Your task to perform on an android device: open app "Adobe Acrobat Reader" (install if not already installed) Image 0: 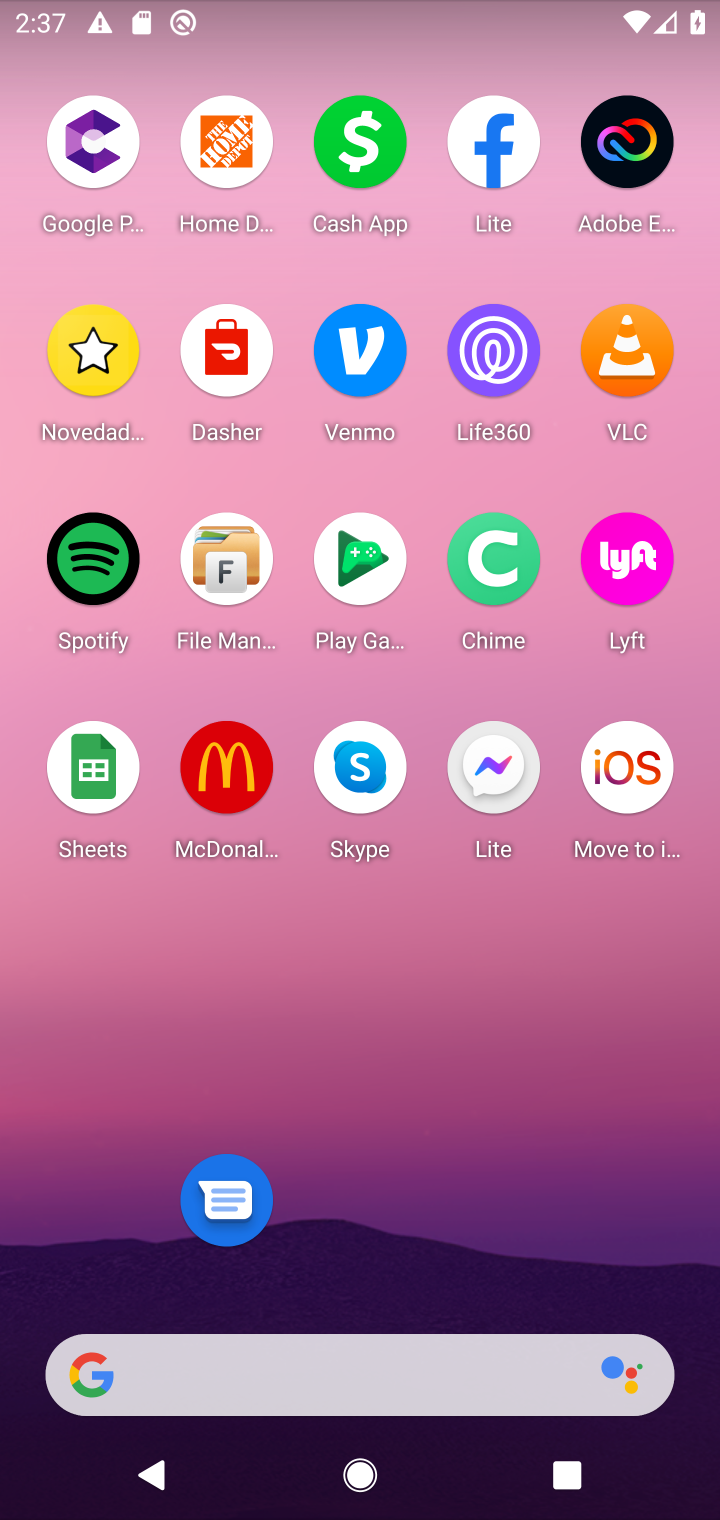
Step 0: drag from (426, 929) to (426, 295)
Your task to perform on an android device: open app "Adobe Acrobat Reader" (install if not already installed) Image 1: 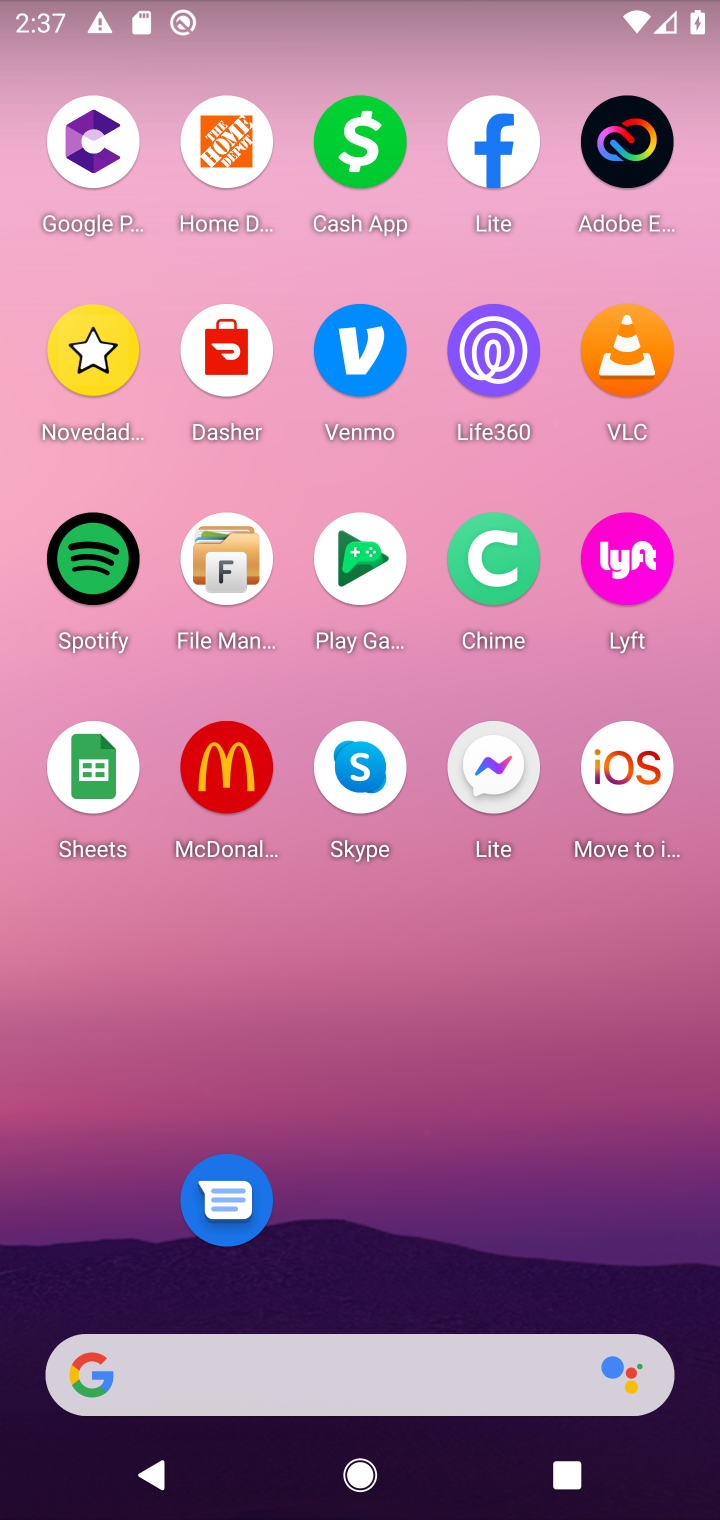
Step 1: drag from (456, 1107) to (365, 204)
Your task to perform on an android device: open app "Adobe Acrobat Reader" (install if not already installed) Image 2: 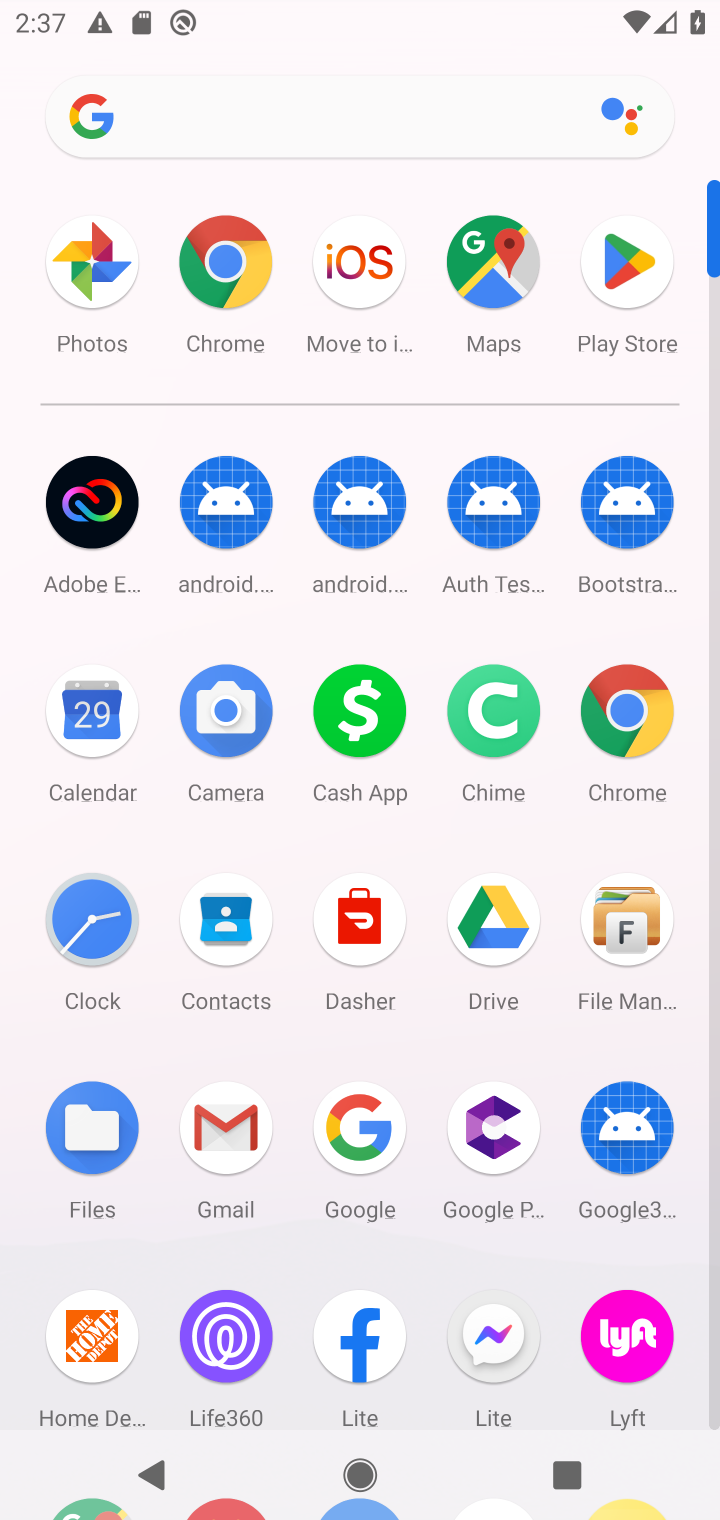
Step 2: click (640, 283)
Your task to perform on an android device: open app "Adobe Acrobat Reader" (install if not already installed) Image 3: 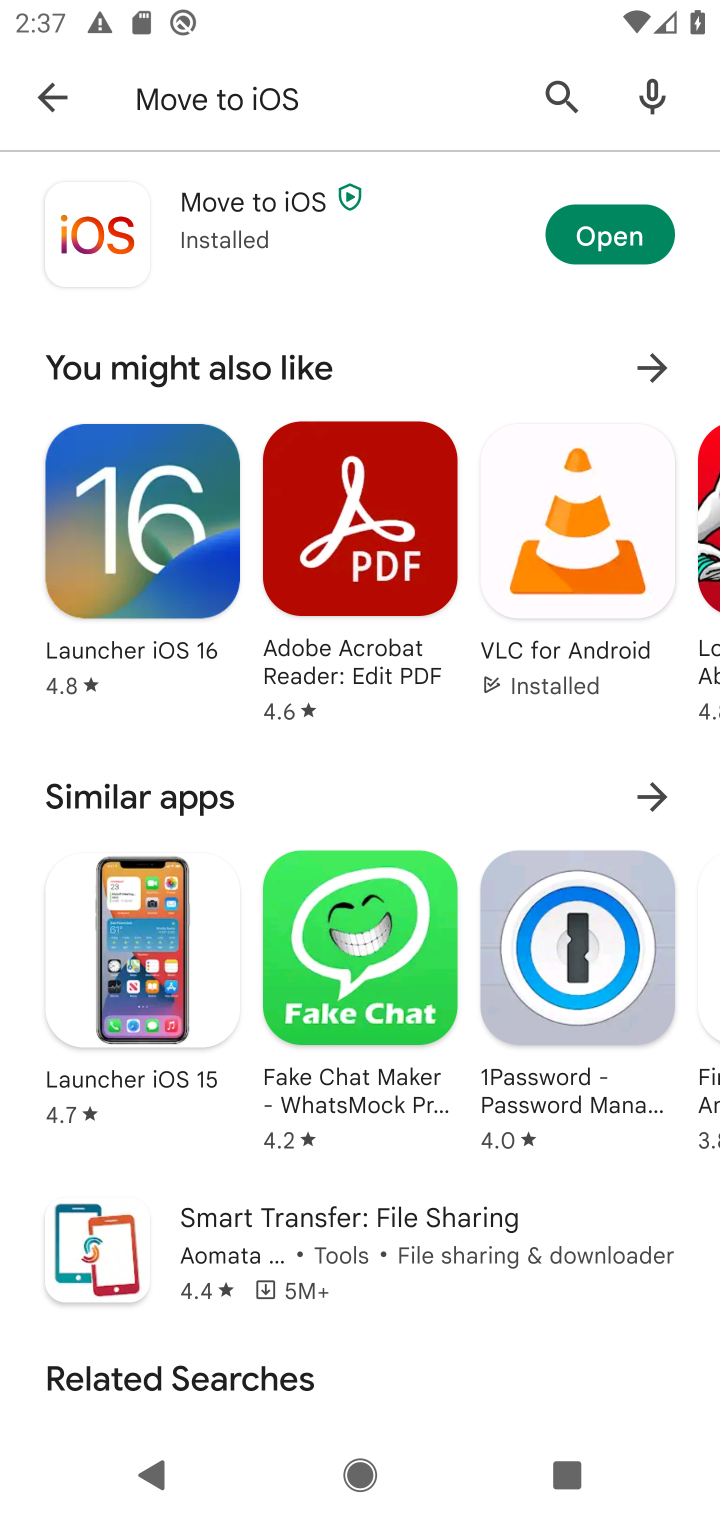
Step 3: click (390, 100)
Your task to perform on an android device: open app "Adobe Acrobat Reader" (install if not already installed) Image 4: 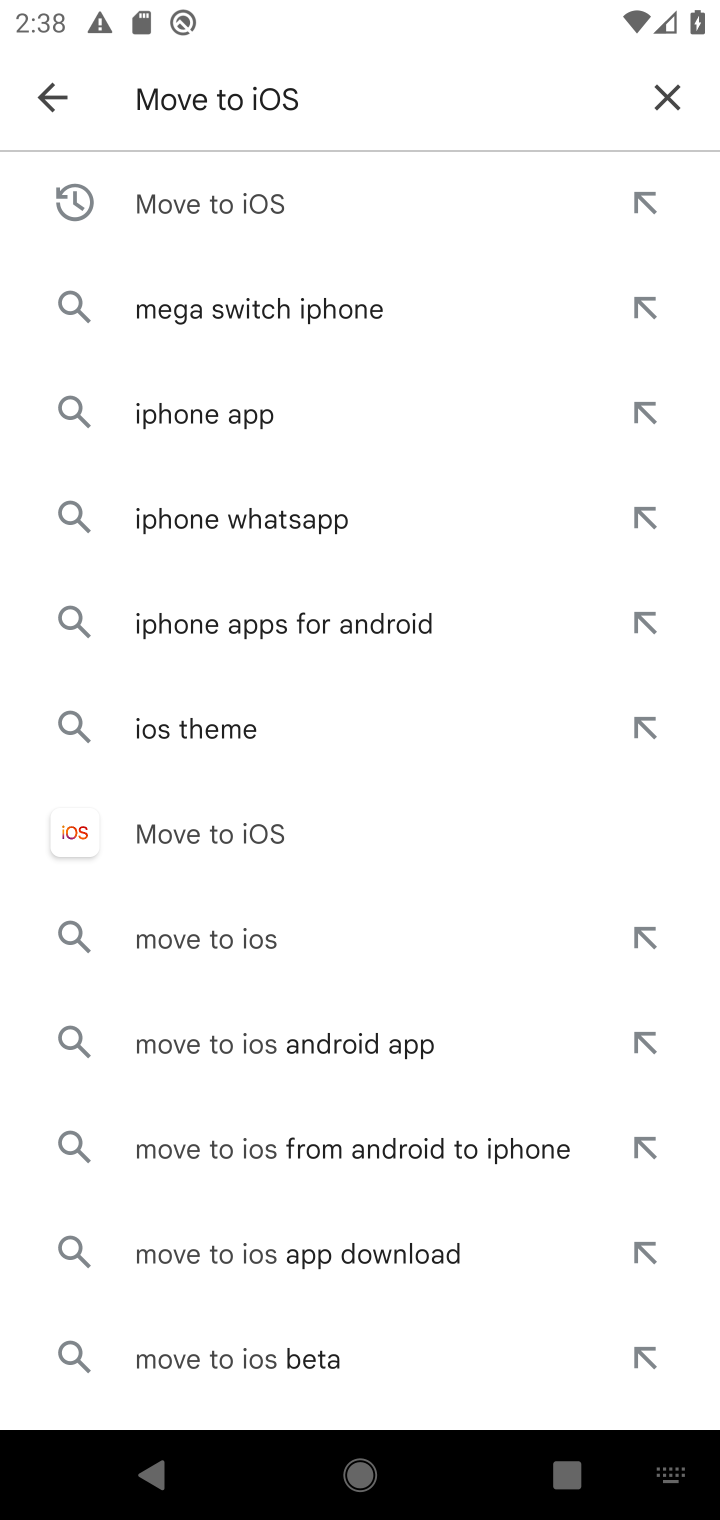
Step 4: click (665, 99)
Your task to perform on an android device: open app "Adobe Acrobat Reader" (install if not already installed) Image 5: 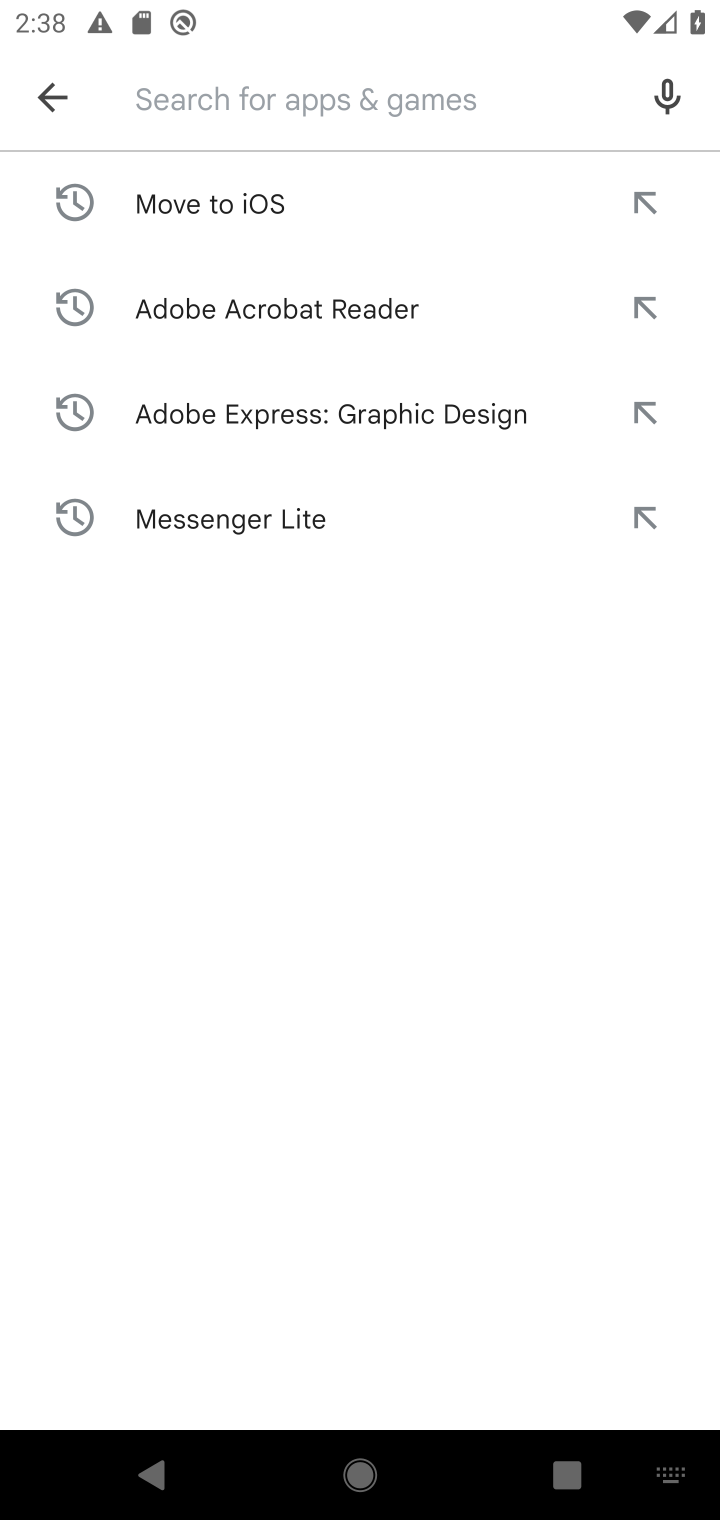
Step 5: type "Adobe Acrobat Reader"
Your task to perform on an android device: open app "Adobe Acrobat Reader" (install if not already installed) Image 6: 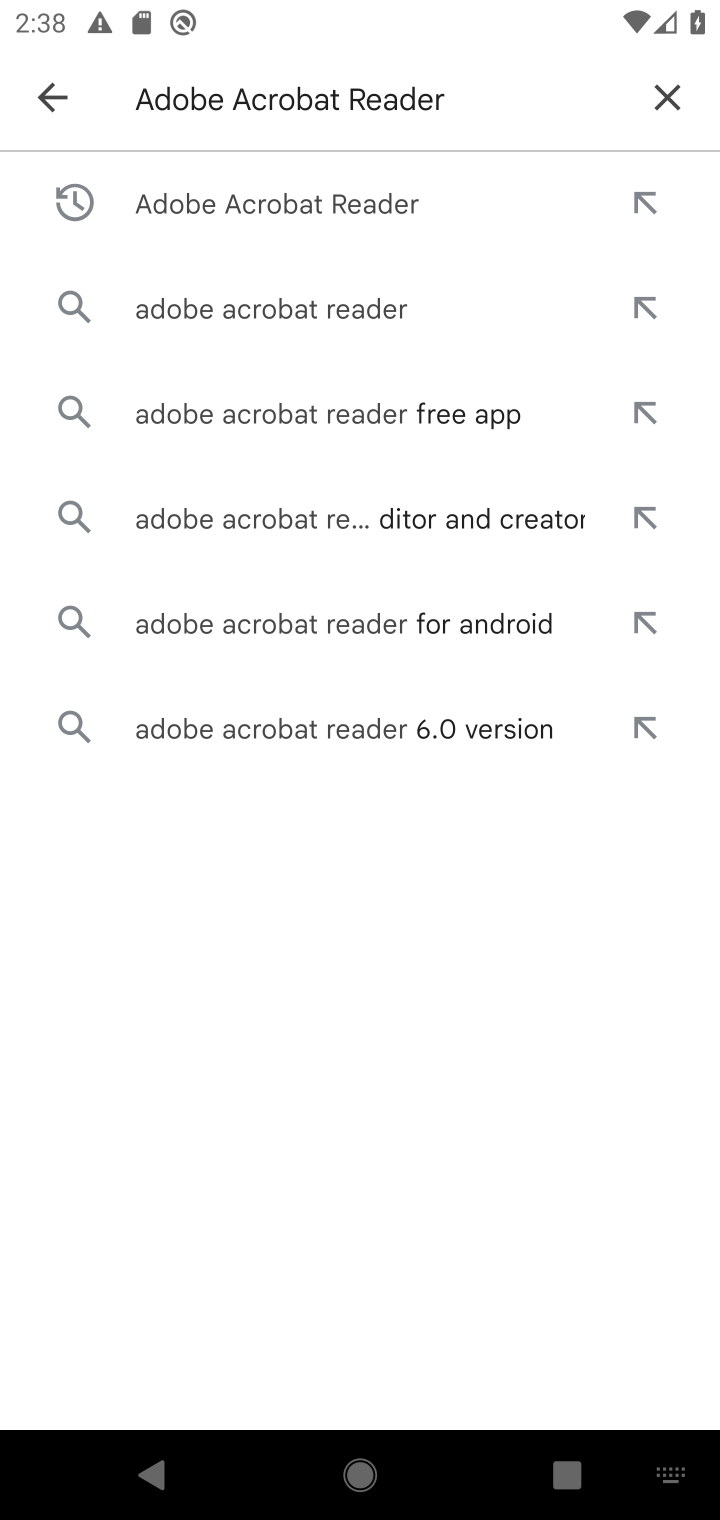
Step 6: press enter
Your task to perform on an android device: open app "Adobe Acrobat Reader" (install if not already installed) Image 7: 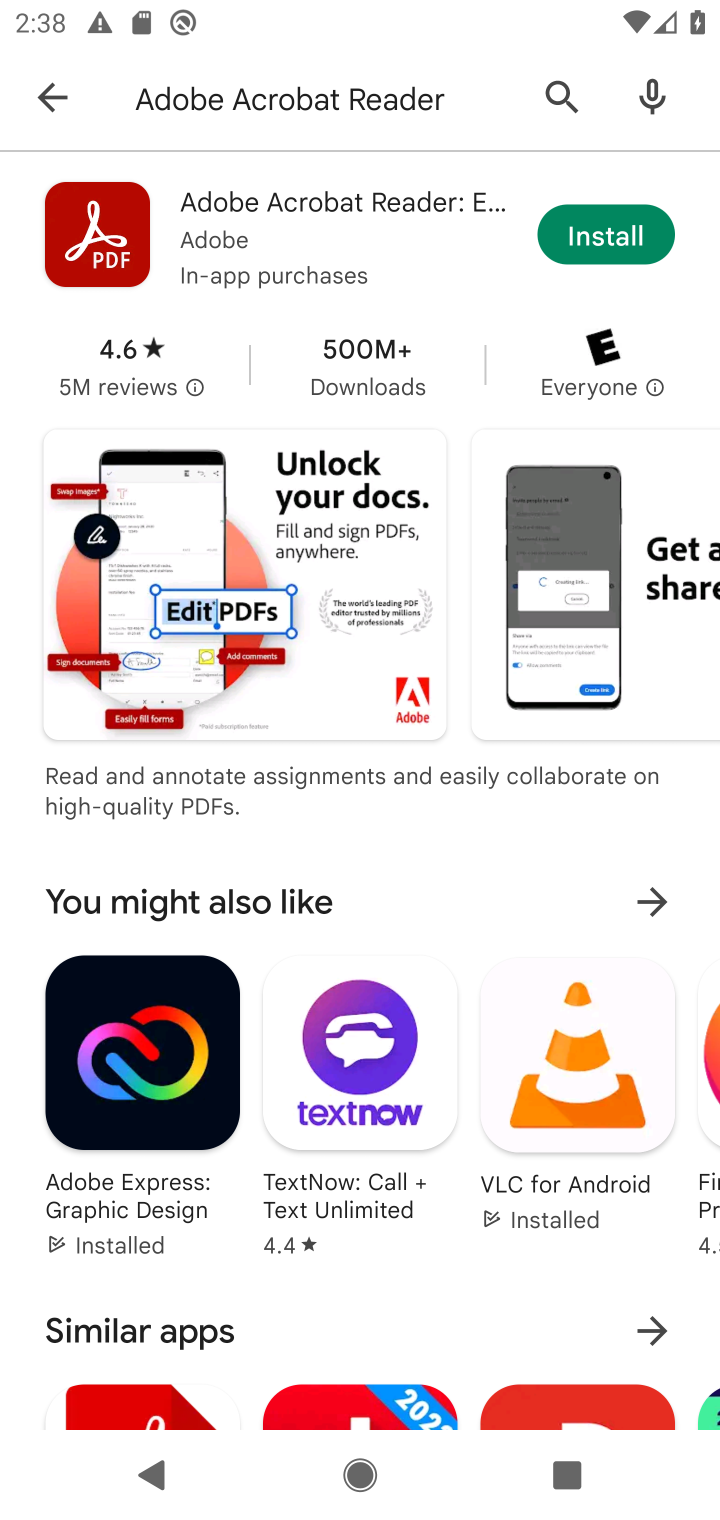
Step 7: click (647, 232)
Your task to perform on an android device: open app "Adobe Acrobat Reader" (install if not already installed) Image 8: 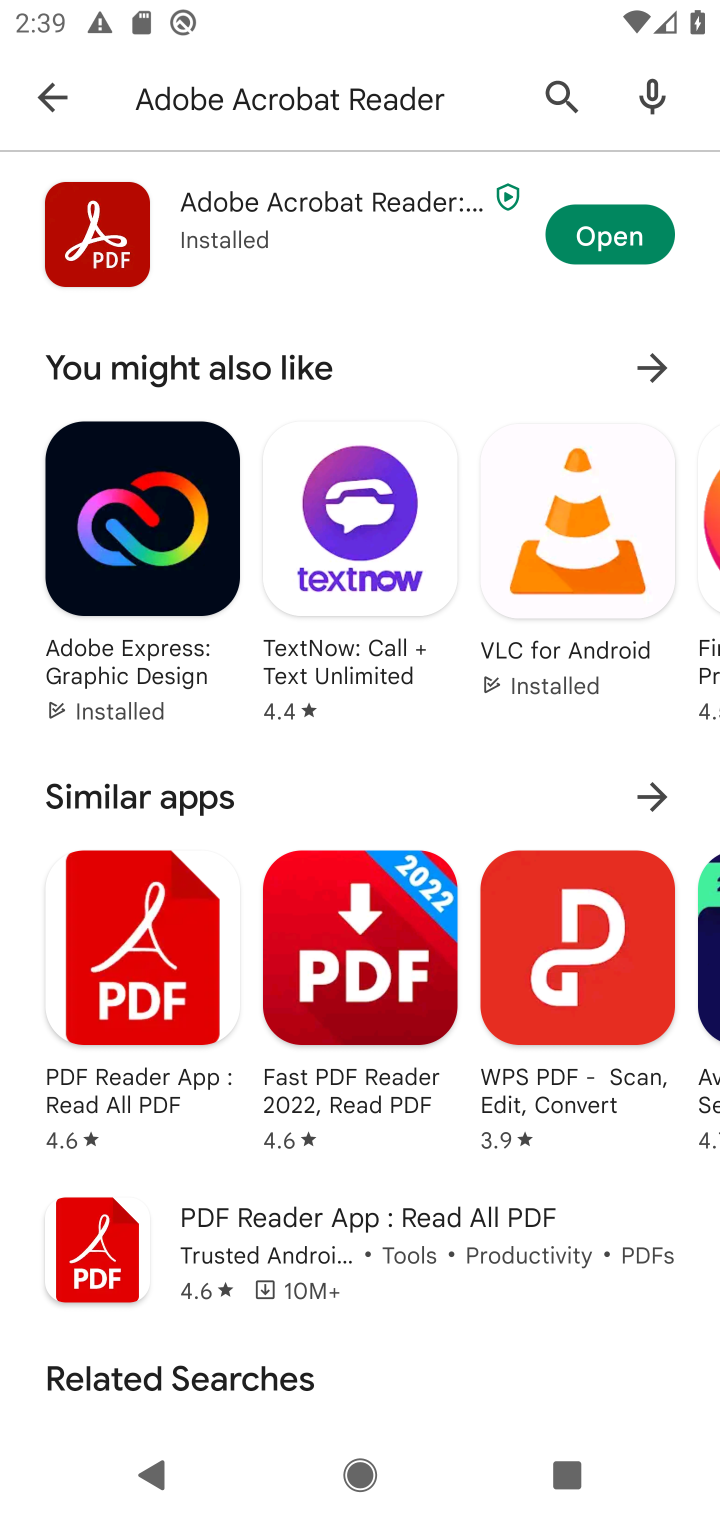
Step 8: click (637, 240)
Your task to perform on an android device: open app "Adobe Acrobat Reader" (install if not already installed) Image 9: 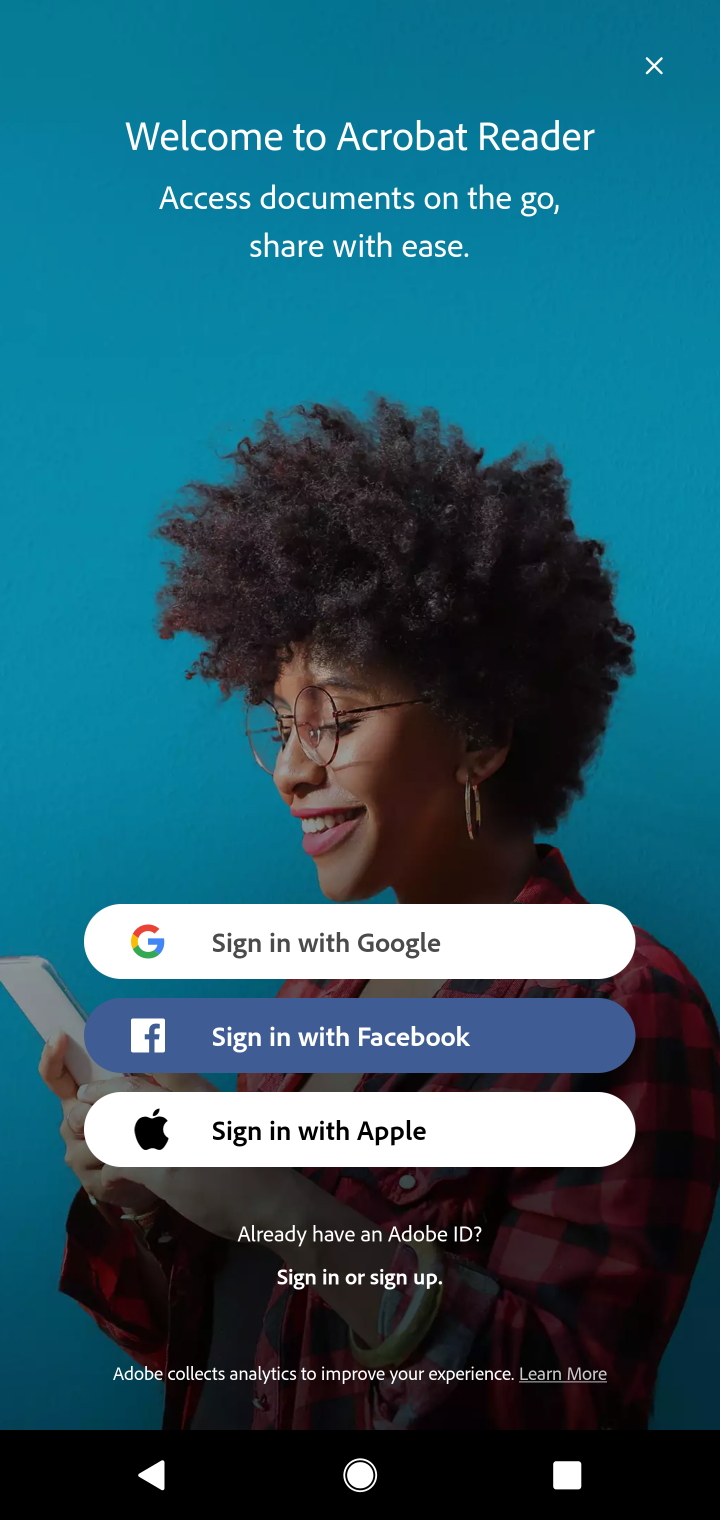
Step 9: task complete